Your task to perform on an android device: find which apps use the phone's location Image 0: 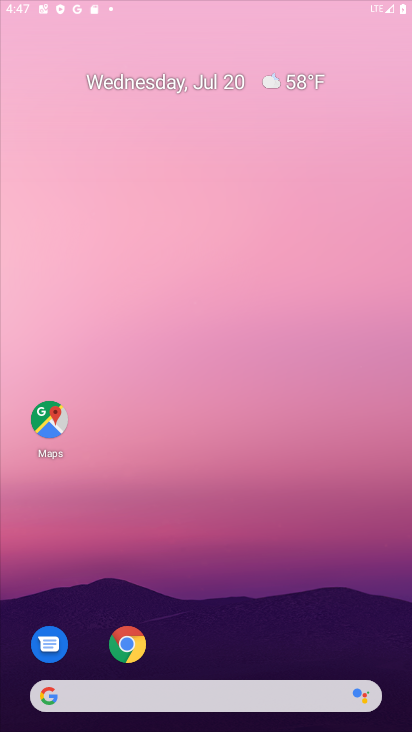
Step 0: press home button
Your task to perform on an android device: find which apps use the phone's location Image 1: 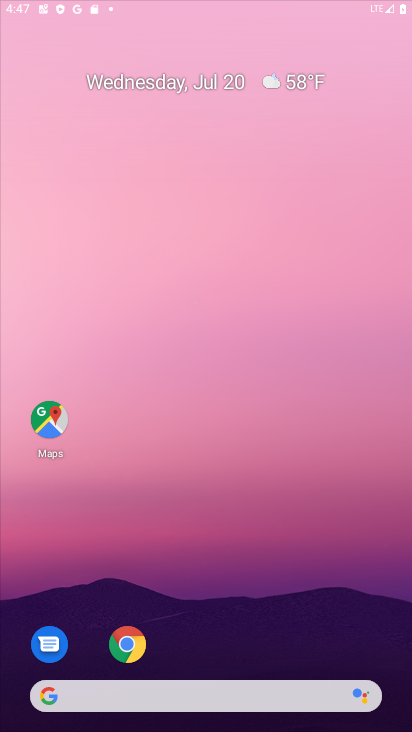
Step 1: click (270, 38)
Your task to perform on an android device: find which apps use the phone's location Image 2: 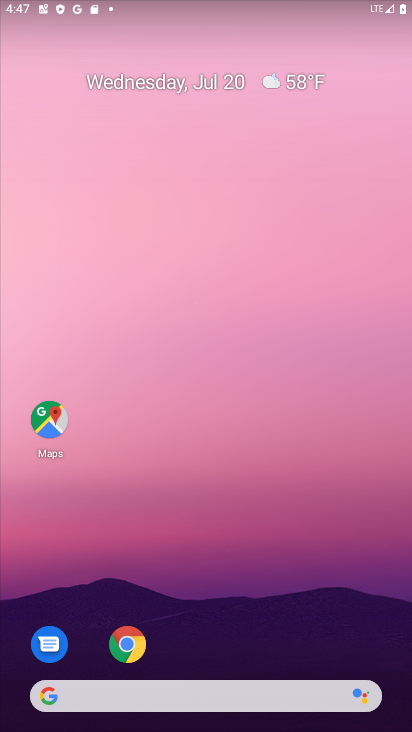
Step 2: press home button
Your task to perform on an android device: find which apps use the phone's location Image 3: 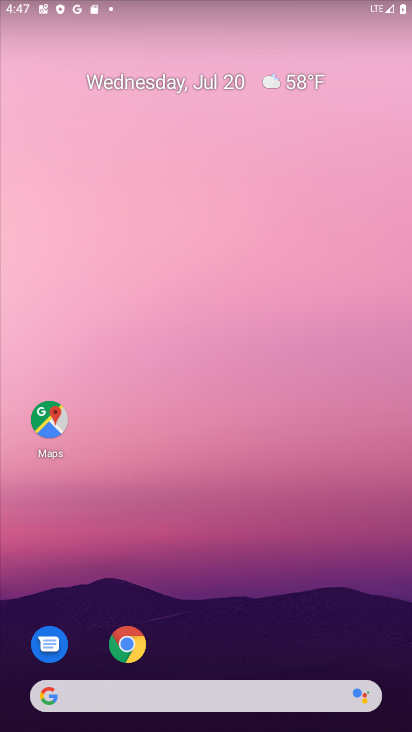
Step 3: drag from (273, 661) to (302, 24)
Your task to perform on an android device: find which apps use the phone's location Image 4: 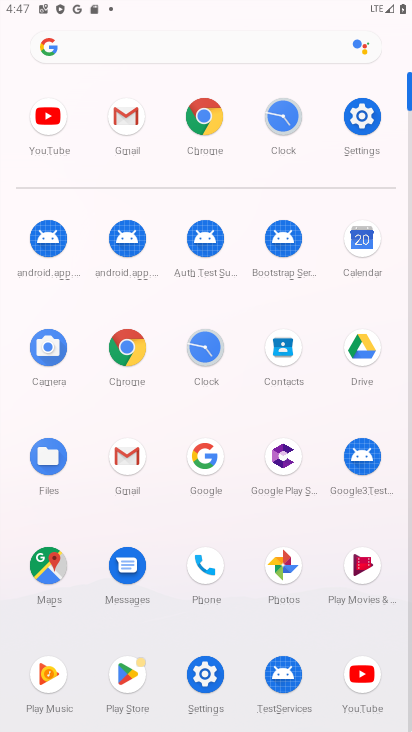
Step 4: click (355, 128)
Your task to perform on an android device: find which apps use the phone's location Image 5: 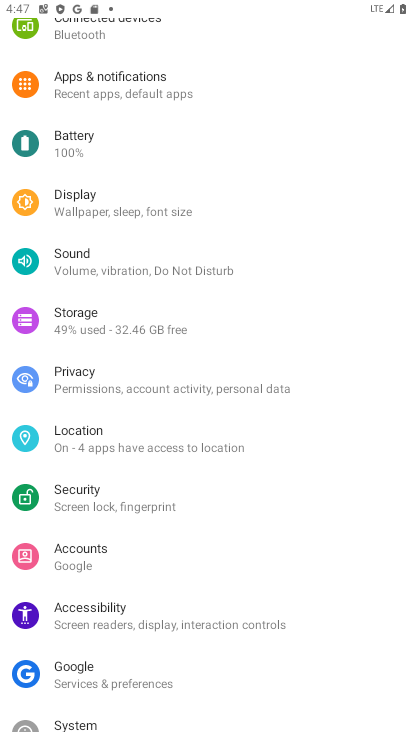
Step 5: click (77, 439)
Your task to perform on an android device: find which apps use the phone's location Image 6: 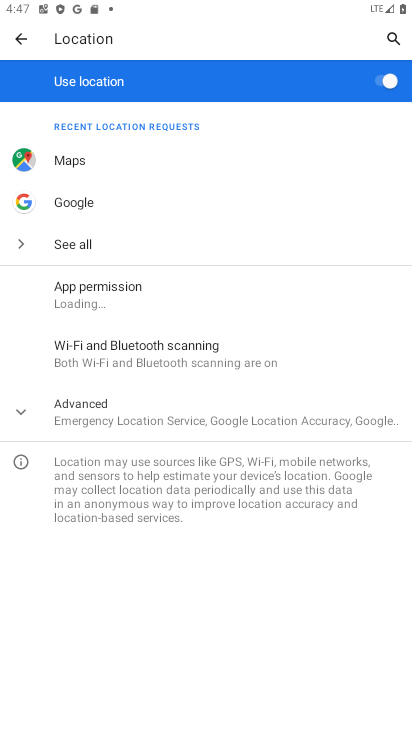
Step 6: click (90, 289)
Your task to perform on an android device: find which apps use the phone's location Image 7: 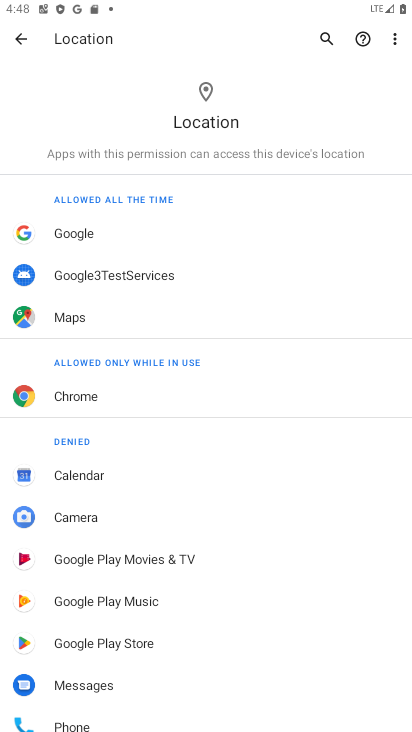
Step 7: task complete